Your task to perform on an android device: all mails in gmail Image 0: 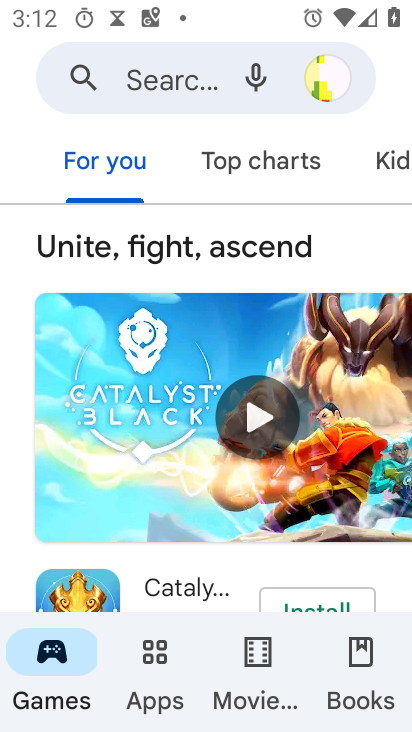
Step 0: press back button
Your task to perform on an android device: all mails in gmail Image 1: 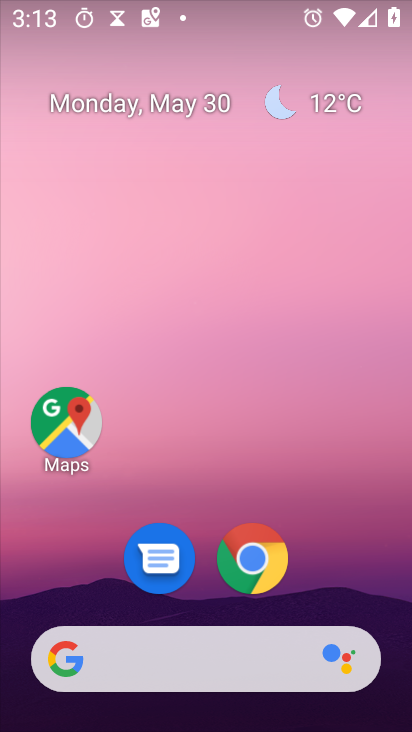
Step 1: drag from (201, 457) to (280, 30)
Your task to perform on an android device: all mails in gmail Image 2: 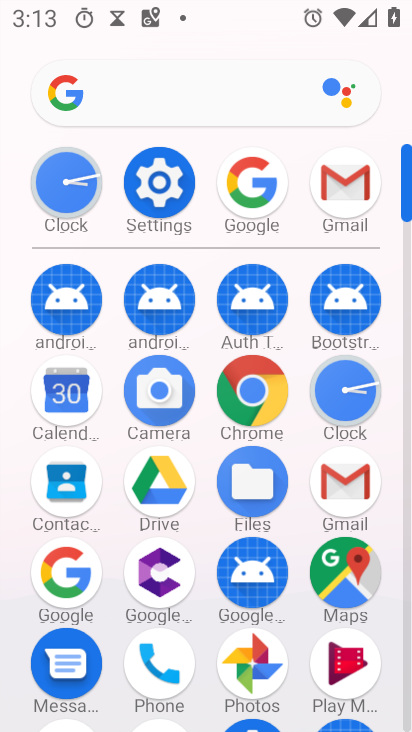
Step 2: click (343, 184)
Your task to perform on an android device: all mails in gmail Image 3: 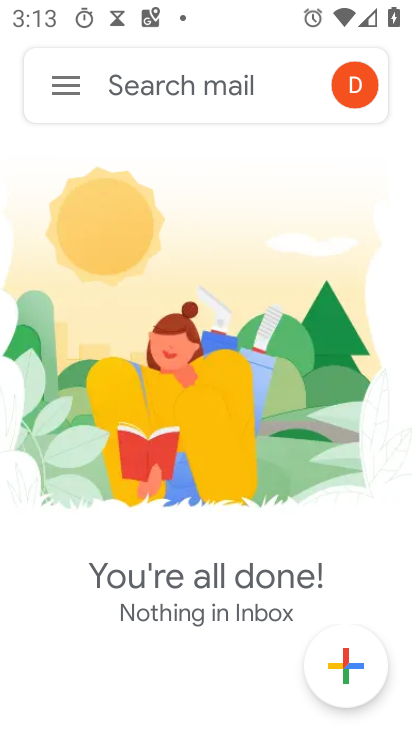
Step 3: click (48, 78)
Your task to perform on an android device: all mails in gmail Image 4: 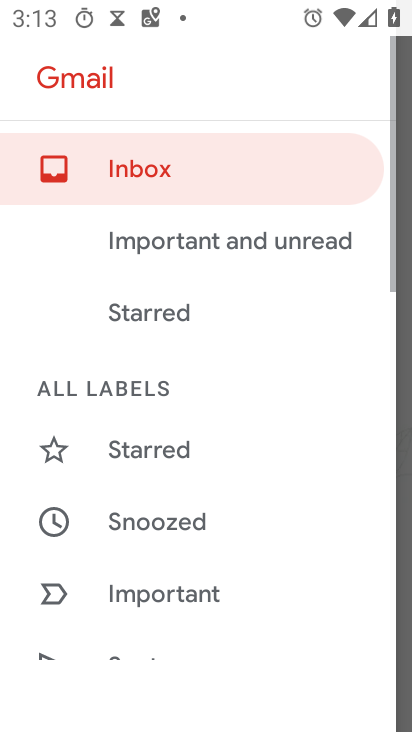
Step 4: drag from (158, 582) to (222, 139)
Your task to perform on an android device: all mails in gmail Image 5: 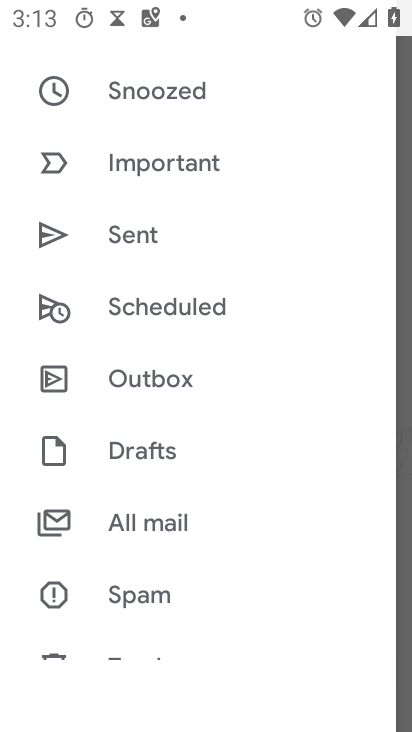
Step 5: click (141, 525)
Your task to perform on an android device: all mails in gmail Image 6: 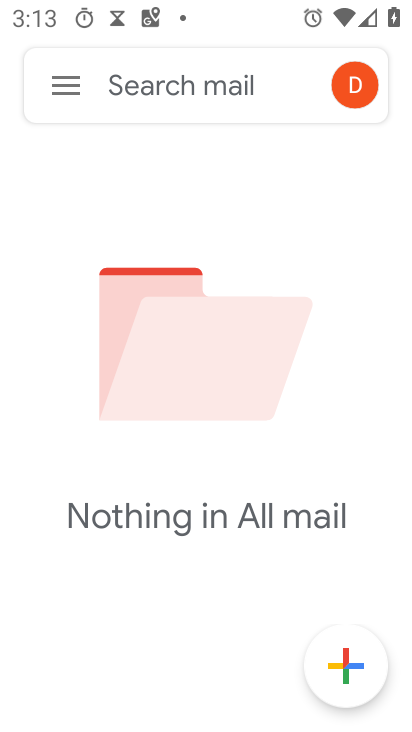
Step 6: task complete